Your task to perform on an android device: turn off picture-in-picture Image 0: 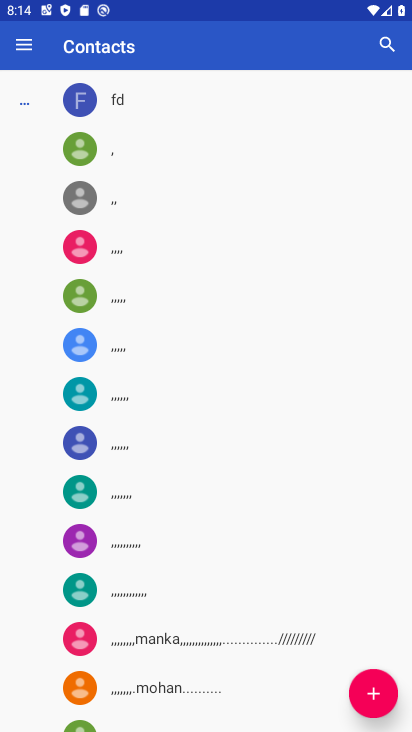
Step 0: drag from (377, 632) to (403, 427)
Your task to perform on an android device: turn off picture-in-picture Image 1: 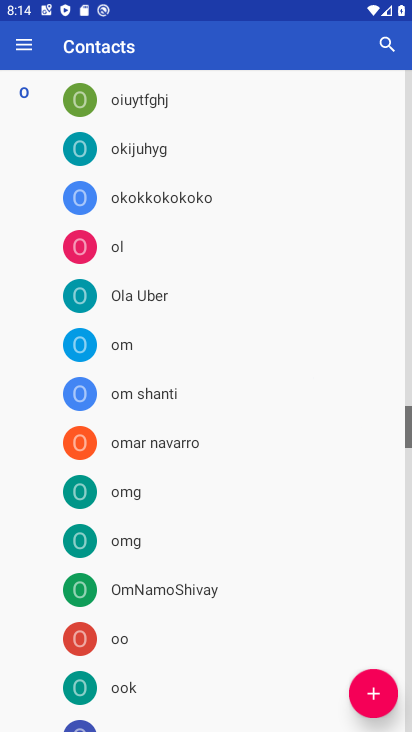
Step 1: press home button
Your task to perform on an android device: turn off picture-in-picture Image 2: 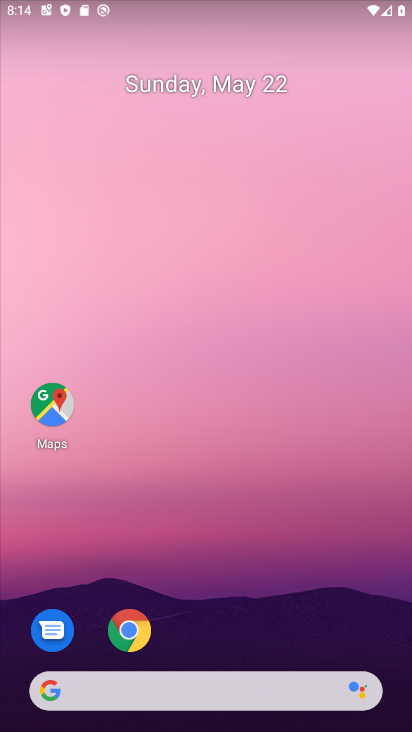
Step 2: drag from (369, 607) to (367, 111)
Your task to perform on an android device: turn off picture-in-picture Image 3: 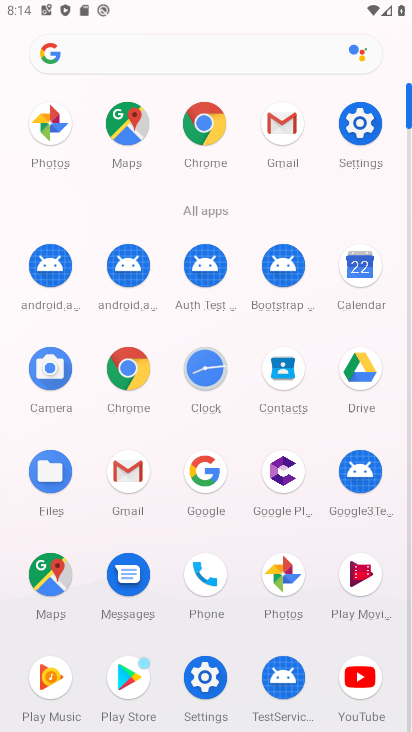
Step 3: drag from (396, 627) to (387, 403)
Your task to perform on an android device: turn off picture-in-picture Image 4: 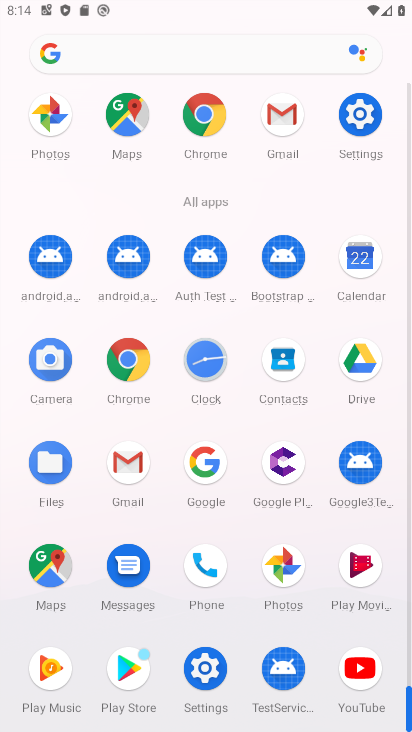
Step 4: click (359, 125)
Your task to perform on an android device: turn off picture-in-picture Image 5: 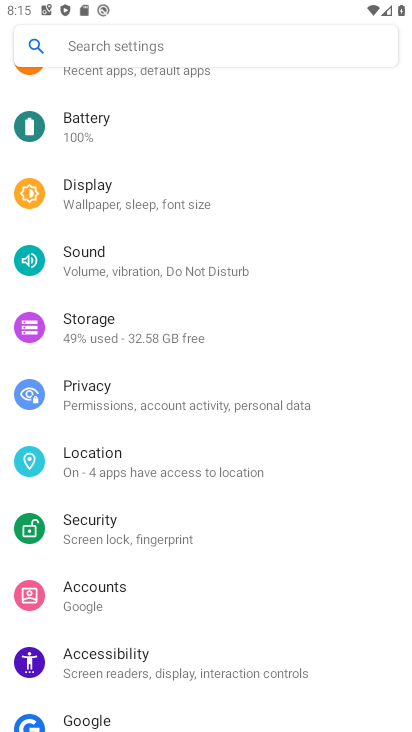
Step 5: drag from (351, 594) to (374, 438)
Your task to perform on an android device: turn off picture-in-picture Image 6: 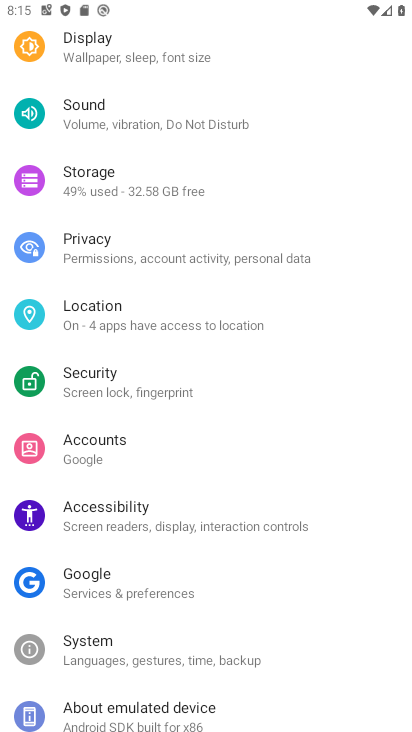
Step 6: drag from (361, 630) to (355, 455)
Your task to perform on an android device: turn off picture-in-picture Image 7: 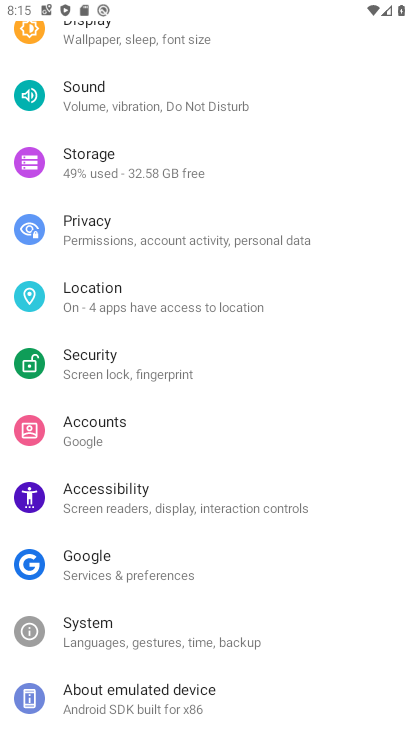
Step 7: drag from (337, 616) to (364, 437)
Your task to perform on an android device: turn off picture-in-picture Image 8: 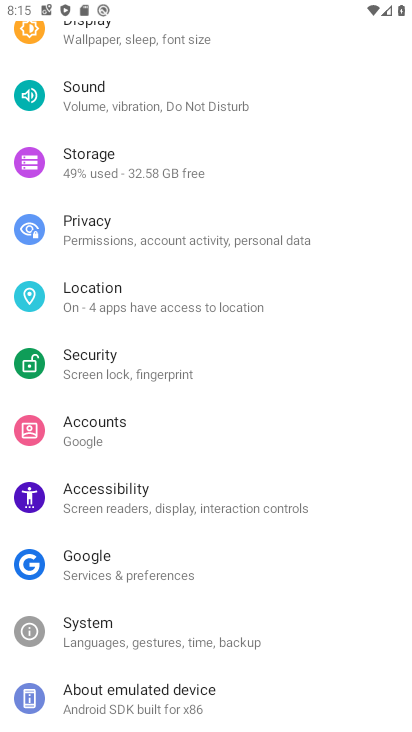
Step 8: drag from (341, 607) to (371, 456)
Your task to perform on an android device: turn off picture-in-picture Image 9: 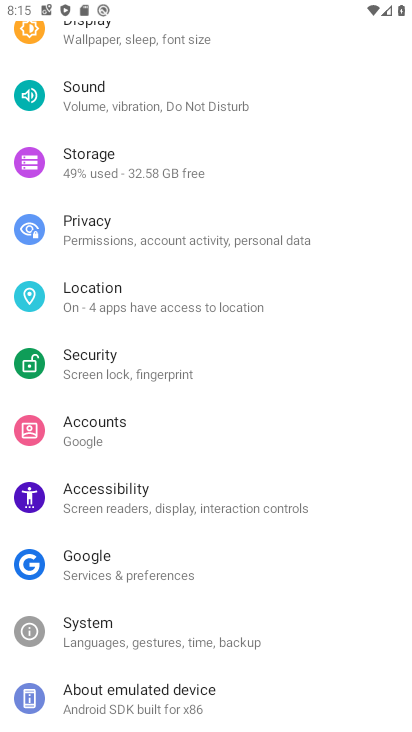
Step 9: drag from (335, 356) to (334, 542)
Your task to perform on an android device: turn off picture-in-picture Image 10: 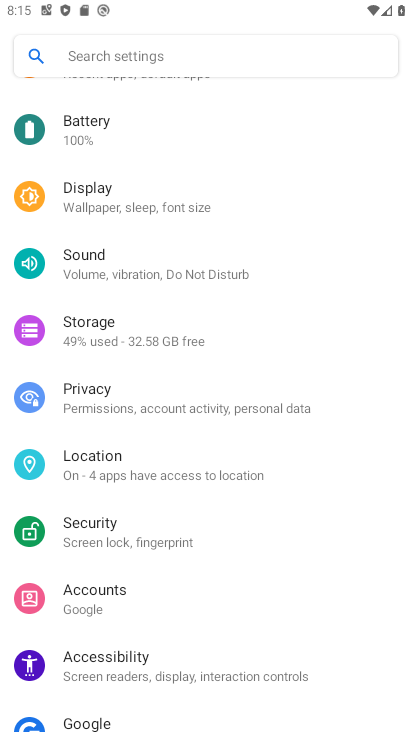
Step 10: drag from (346, 301) to (348, 473)
Your task to perform on an android device: turn off picture-in-picture Image 11: 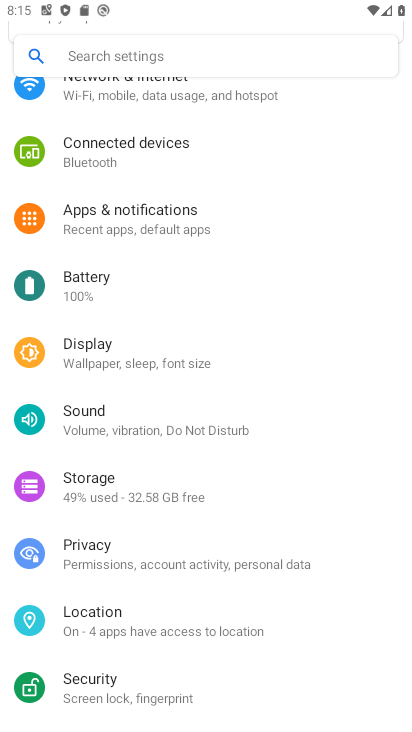
Step 11: drag from (338, 303) to (332, 494)
Your task to perform on an android device: turn off picture-in-picture Image 12: 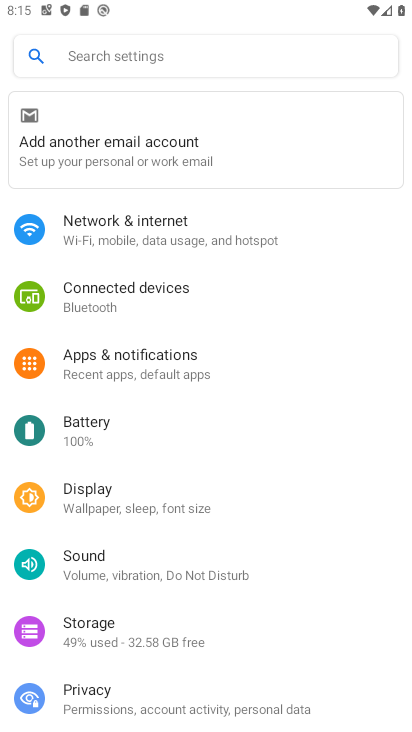
Step 12: press back button
Your task to perform on an android device: turn off picture-in-picture Image 13: 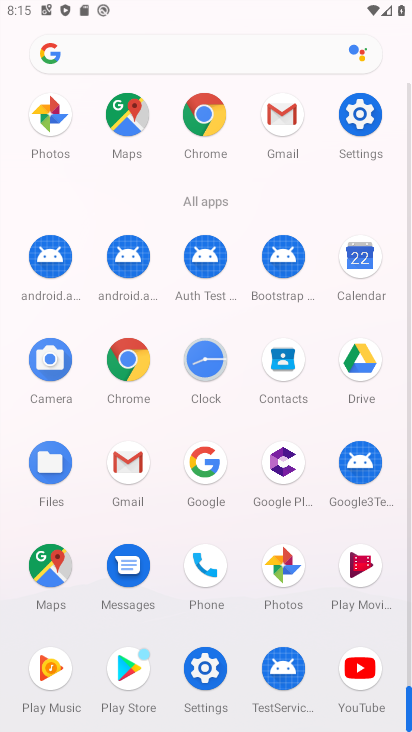
Step 13: click (369, 111)
Your task to perform on an android device: turn off picture-in-picture Image 14: 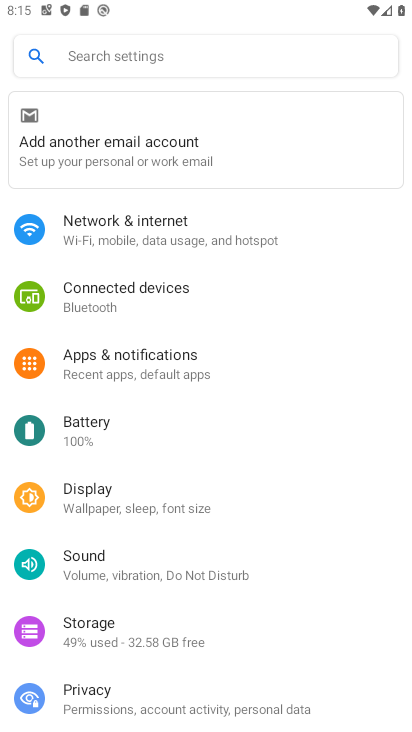
Step 14: click (188, 358)
Your task to perform on an android device: turn off picture-in-picture Image 15: 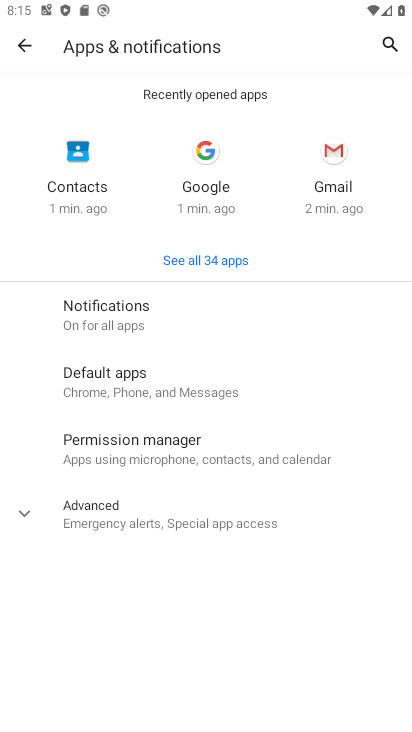
Step 15: click (205, 519)
Your task to perform on an android device: turn off picture-in-picture Image 16: 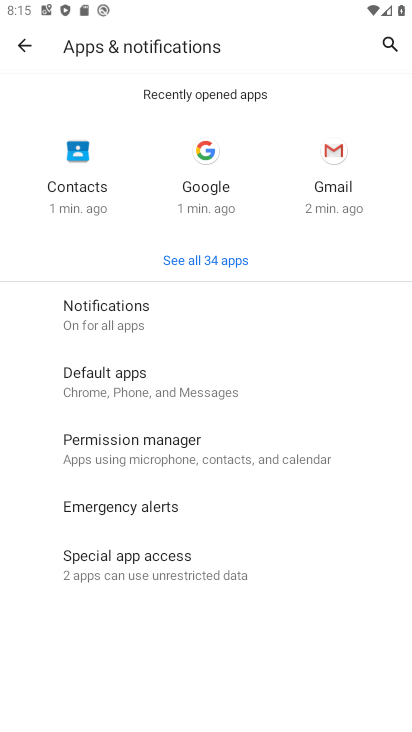
Step 16: click (184, 555)
Your task to perform on an android device: turn off picture-in-picture Image 17: 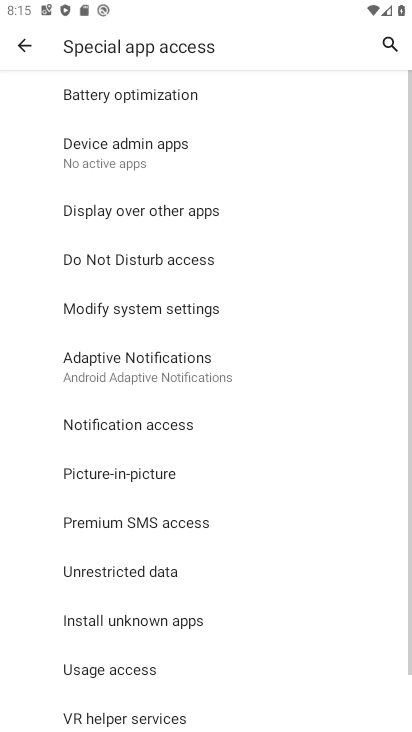
Step 17: drag from (296, 594) to (299, 492)
Your task to perform on an android device: turn off picture-in-picture Image 18: 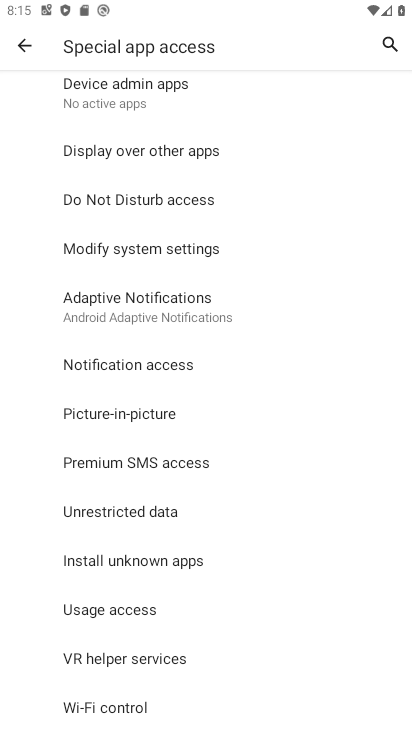
Step 18: click (153, 421)
Your task to perform on an android device: turn off picture-in-picture Image 19: 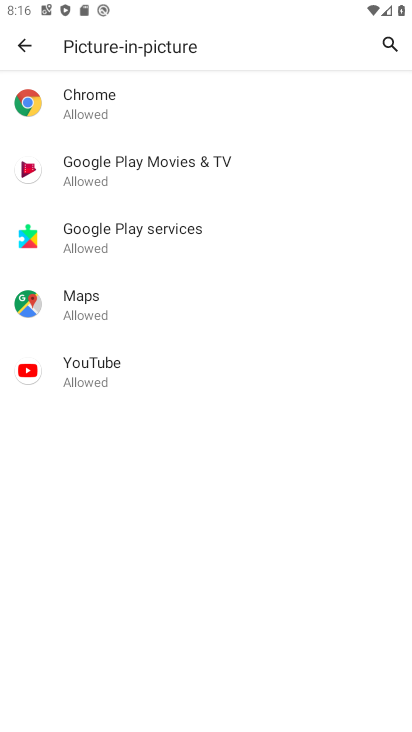
Step 19: click (141, 393)
Your task to perform on an android device: turn off picture-in-picture Image 20: 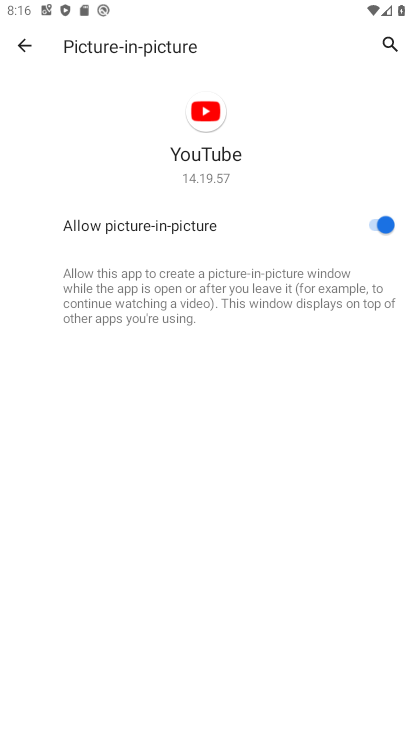
Step 20: click (387, 225)
Your task to perform on an android device: turn off picture-in-picture Image 21: 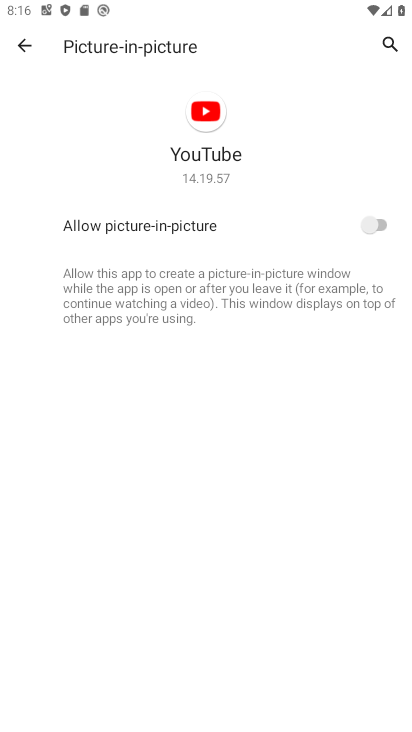
Step 21: task complete